Your task to perform on an android device: Search for Italian restaurants on Maps Image 0: 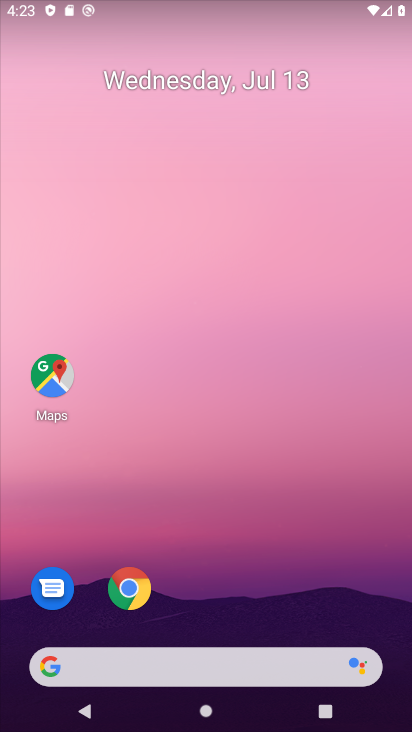
Step 0: click (40, 370)
Your task to perform on an android device: Search for Italian restaurants on Maps Image 1: 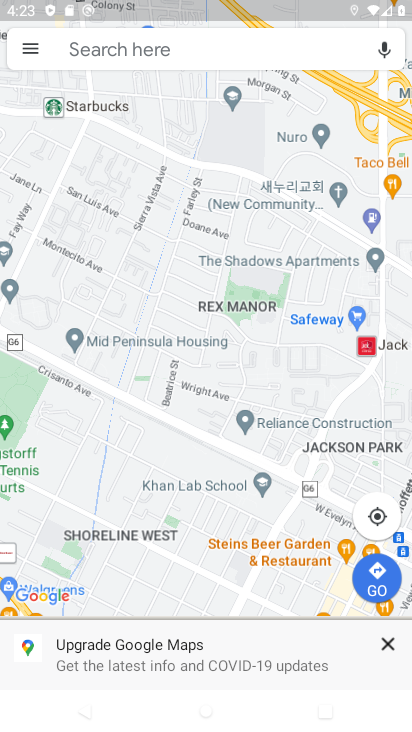
Step 1: click (218, 480)
Your task to perform on an android device: Search for Italian restaurants on Maps Image 2: 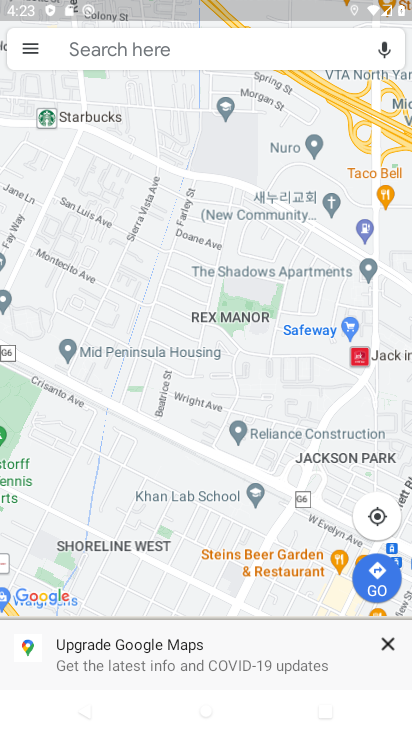
Step 2: type "Is it going to rain this weekend?"
Your task to perform on an android device: Search for Italian restaurants on Maps Image 3: 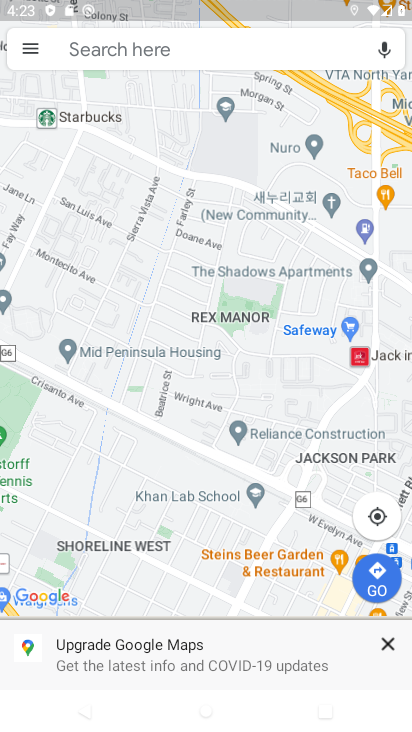
Step 3: type ""
Your task to perform on an android device: Search for Italian restaurants on Maps Image 4: 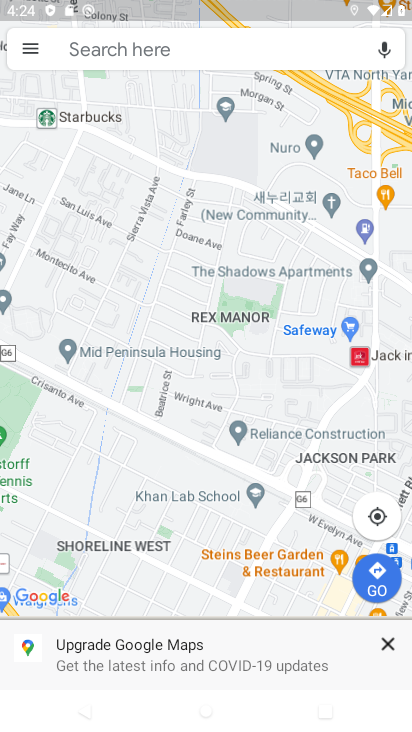
Step 4: type ""
Your task to perform on an android device: Search for Italian restaurants on Maps Image 5: 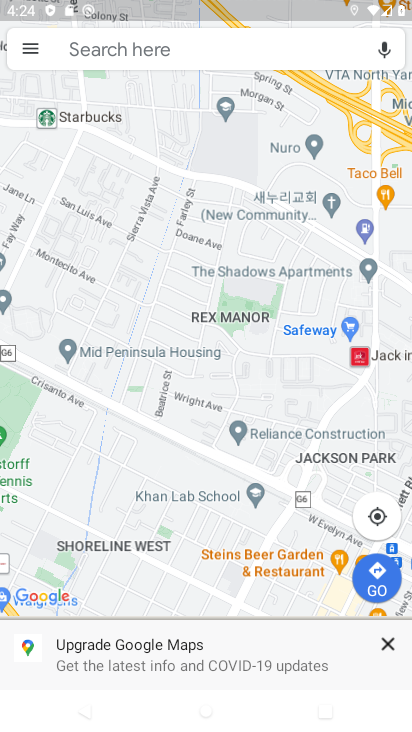
Step 5: click (91, 53)
Your task to perform on an android device: Search for Italian restaurants on Maps Image 6: 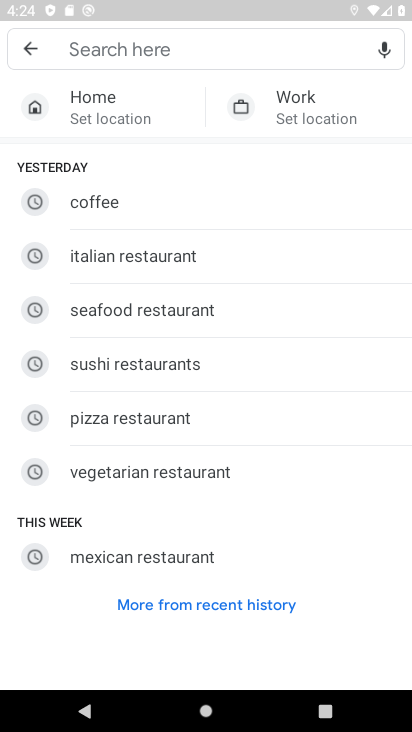
Step 6: type "Italian restaurants "
Your task to perform on an android device: Search for Italian restaurants on Maps Image 7: 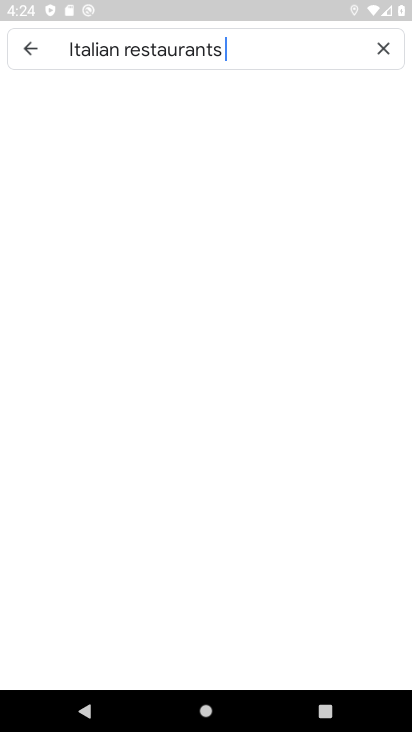
Step 7: type ""
Your task to perform on an android device: Search for Italian restaurants on Maps Image 8: 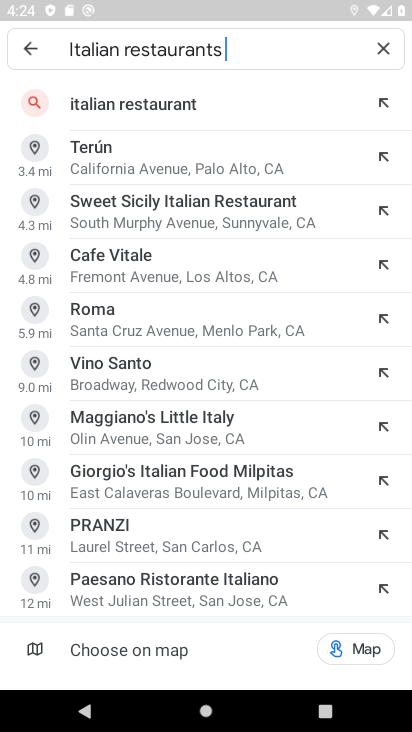
Step 8: click (172, 110)
Your task to perform on an android device: Search for Italian restaurants on Maps Image 9: 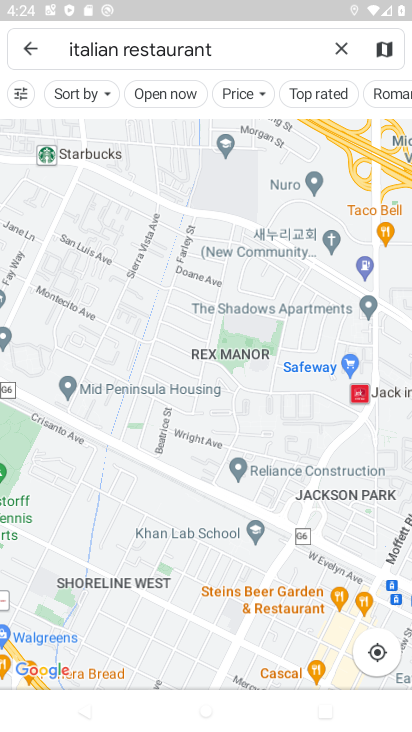
Step 9: task complete